Your task to perform on an android device: turn notification dots on Image 0: 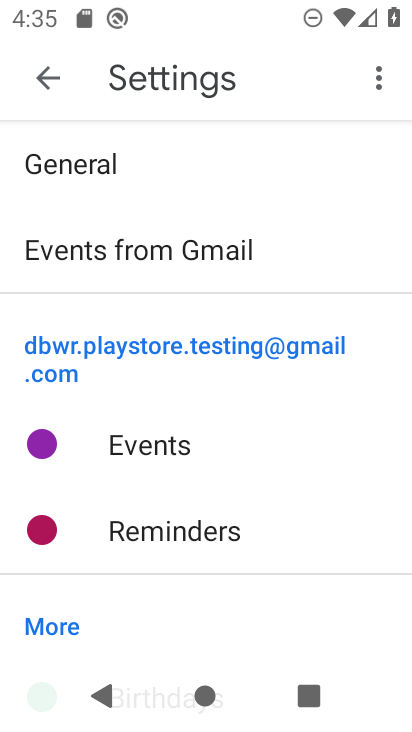
Step 0: press home button
Your task to perform on an android device: turn notification dots on Image 1: 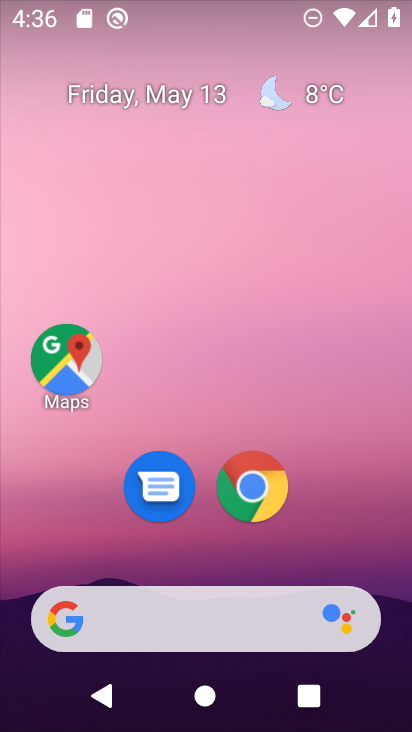
Step 1: drag from (303, 542) to (342, 120)
Your task to perform on an android device: turn notification dots on Image 2: 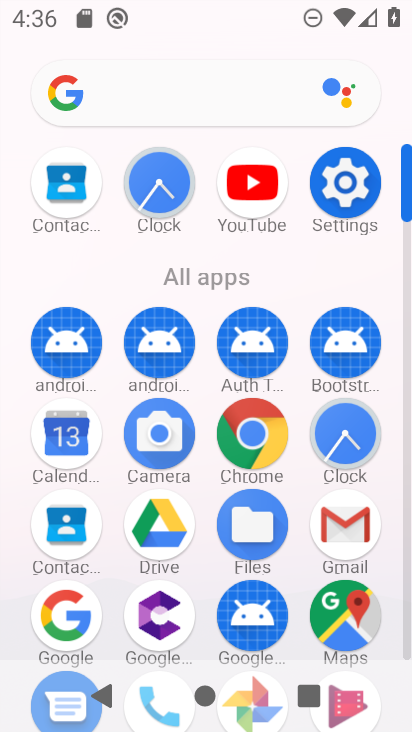
Step 2: click (323, 171)
Your task to perform on an android device: turn notification dots on Image 3: 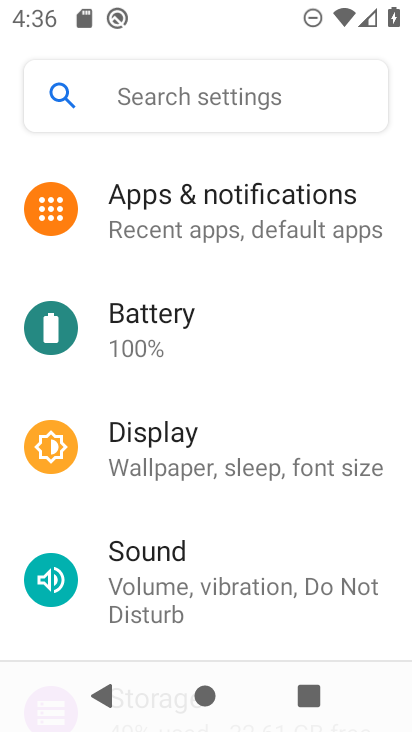
Step 3: click (209, 199)
Your task to perform on an android device: turn notification dots on Image 4: 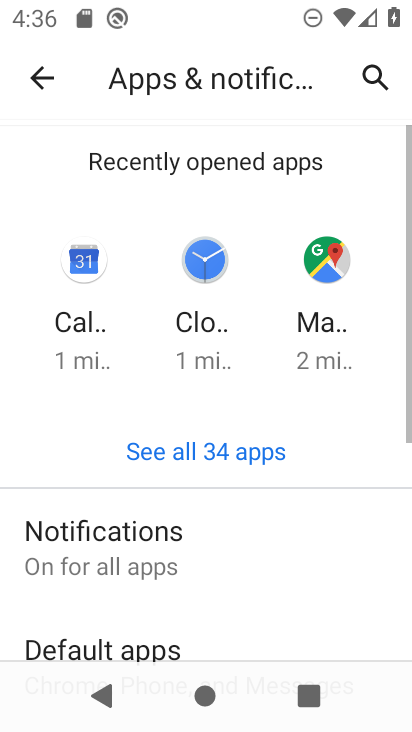
Step 4: drag from (203, 579) to (278, 351)
Your task to perform on an android device: turn notification dots on Image 5: 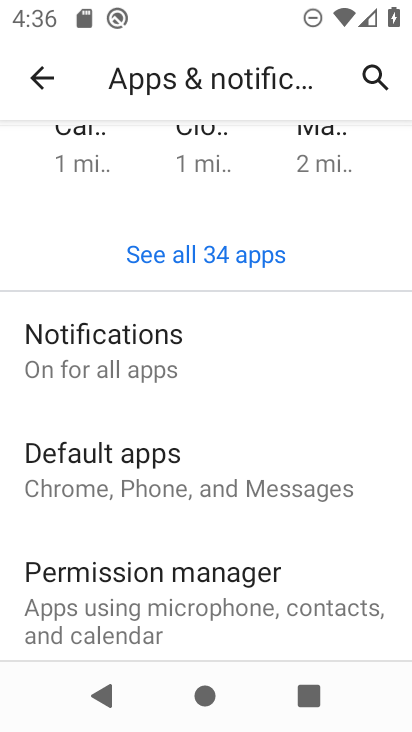
Step 5: drag from (240, 575) to (271, 478)
Your task to perform on an android device: turn notification dots on Image 6: 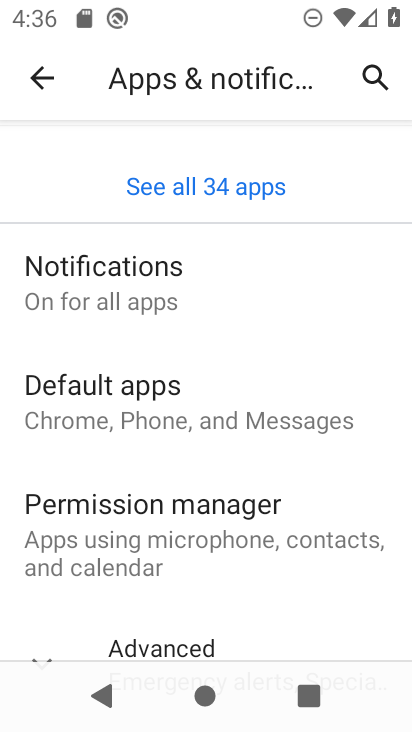
Step 6: click (262, 291)
Your task to perform on an android device: turn notification dots on Image 7: 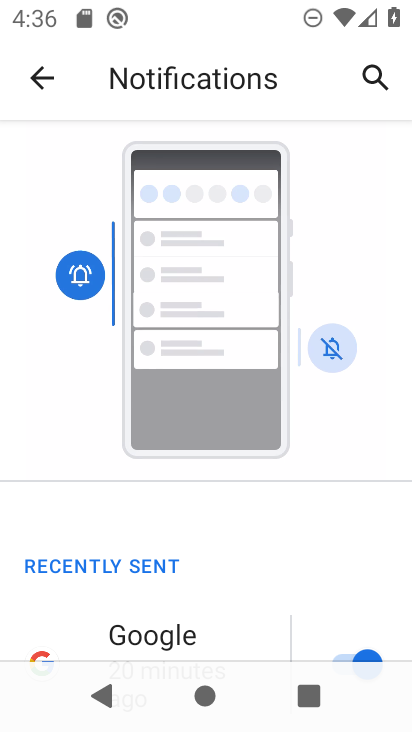
Step 7: drag from (315, 626) to (360, 376)
Your task to perform on an android device: turn notification dots on Image 8: 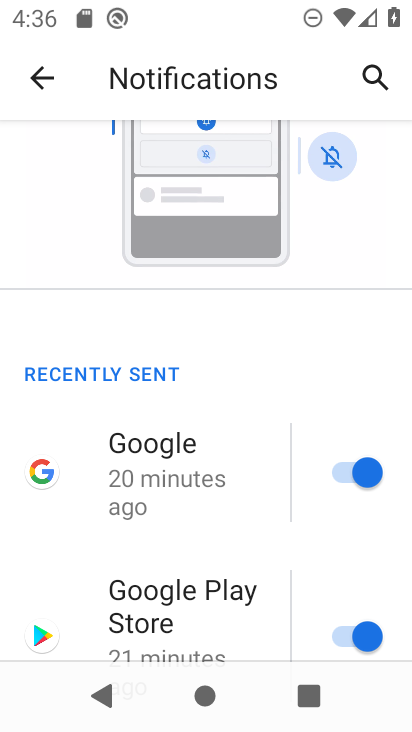
Step 8: drag from (322, 617) to (336, 507)
Your task to perform on an android device: turn notification dots on Image 9: 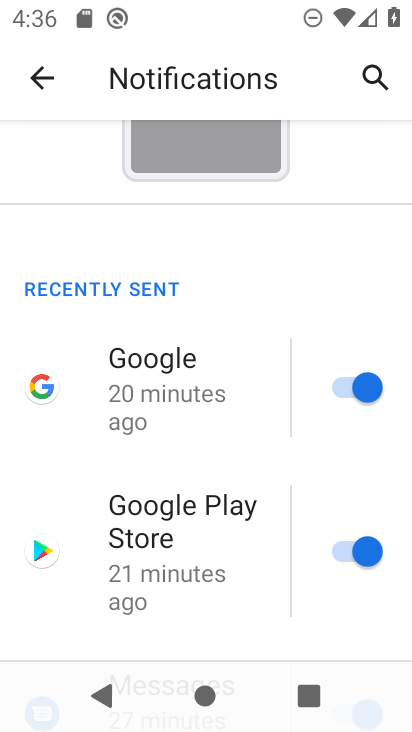
Step 9: drag from (219, 557) to (265, 420)
Your task to perform on an android device: turn notification dots on Image 10: 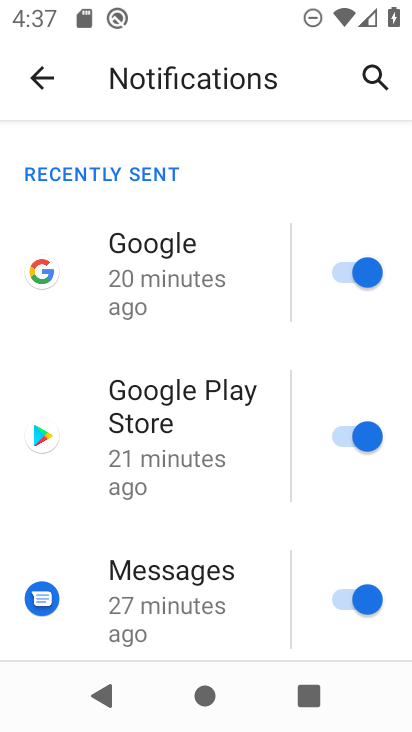
Step 10: drag from (265, 624) to (278, 532)
Your task to perform on an android device: turn notification dots on Image 11: 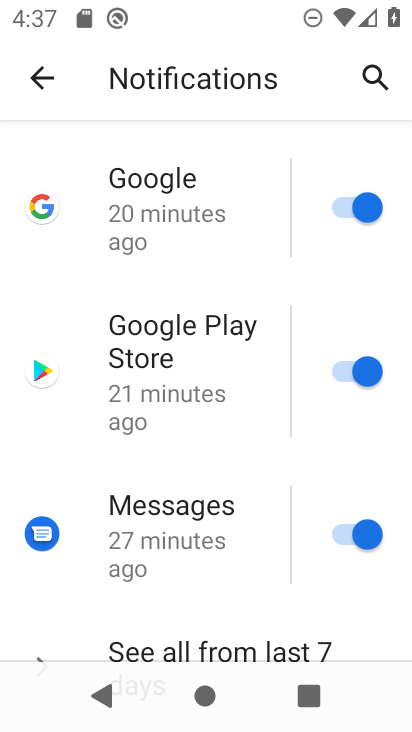
Step 11: drag from (242, 589) to (324, 119)
Your task to perform on an android device: turn notification dots on Image 12: 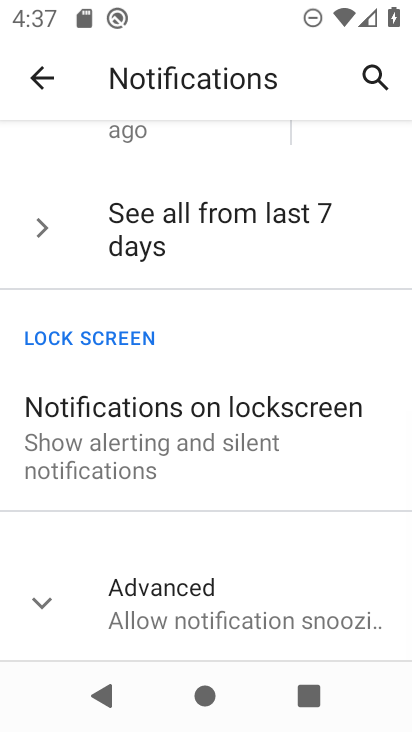
Step 12: drag from (279, 530) to (312, 398)
Your task to perform on an android device: turn notification dots on Image 13: 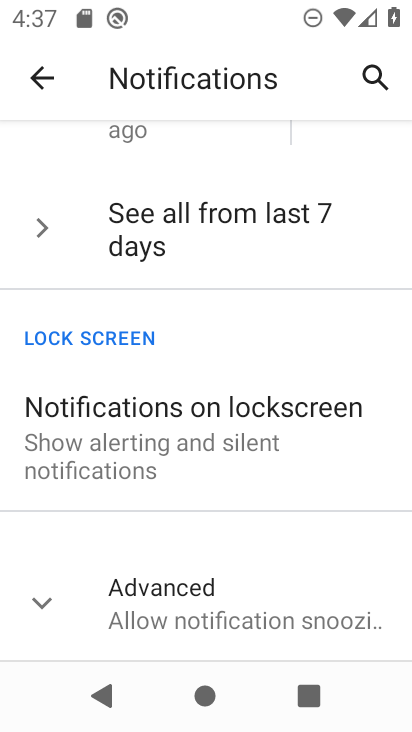
Step 13: drag from (226, 566) to (277, 365)
Your task to perform on an android device: turn notification dots on Image 14: 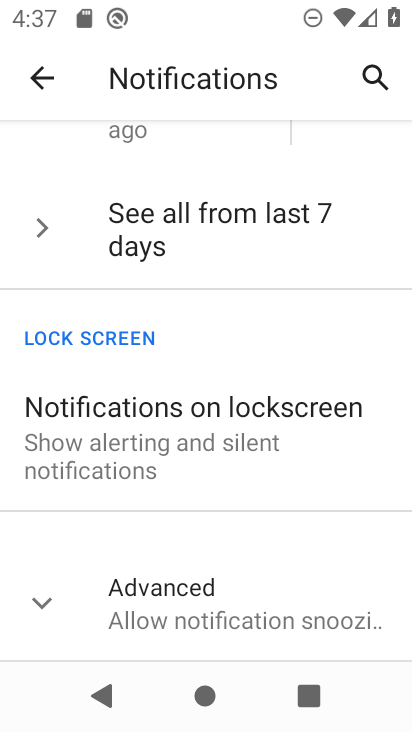
Step 14: click (181, 589)
Your task to perform on an android device: turn notification dots on Image 15: 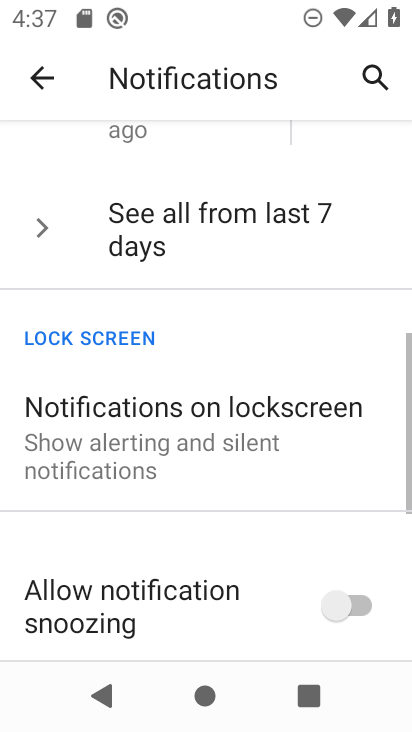
Step 15: drag from (195, 553) to (281, 300)
Your task to perform on an android device: turn notification dots on Image 16: 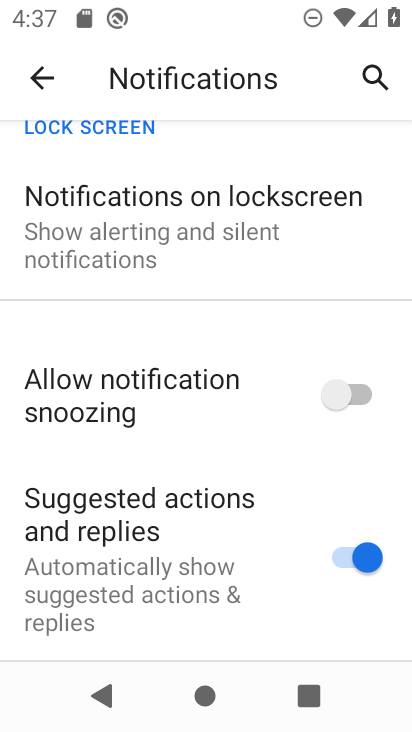
Step 16: drag from (257, 504) to (299, 329)
Your task to perform on an android device: turn notification dots on Image 17: 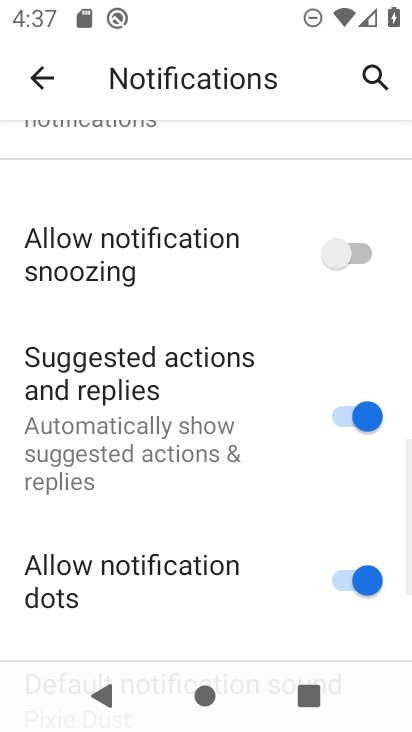
Step 17: drag from (281, 377) to (288, 324)
Your task to perform on an android device: turn notification dots on Image 18: 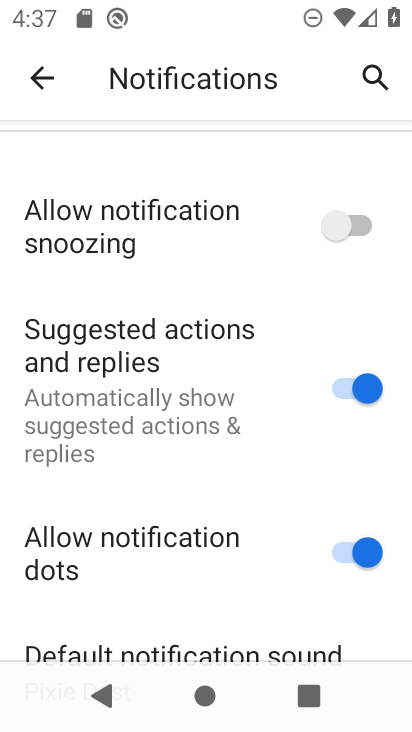
Step 18: click (345, 566)
Your task to perform on an android device: turn notification dots on Image 19: 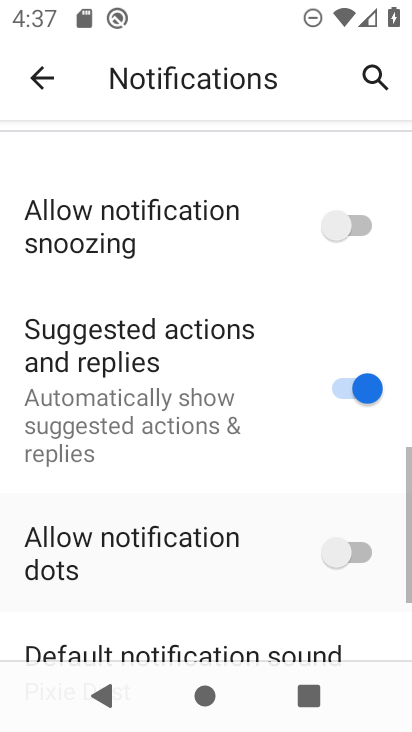
Step 19: task complete